Your task to perform on an android device: create a new album in the google photos Image 0: 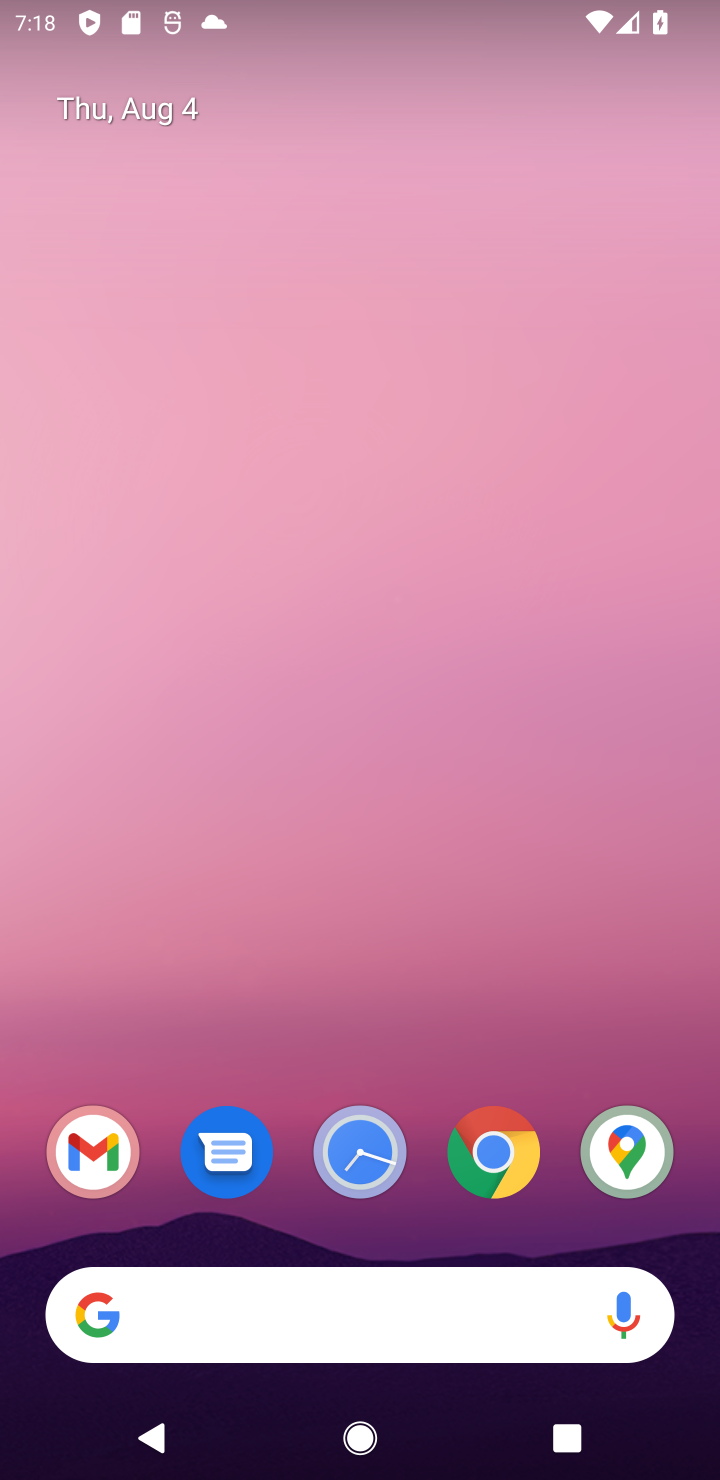
Step 0: drag from (22, 1112) to (265, 362)
Your task to perform on an android device: create a new album in the google photos Image 1: 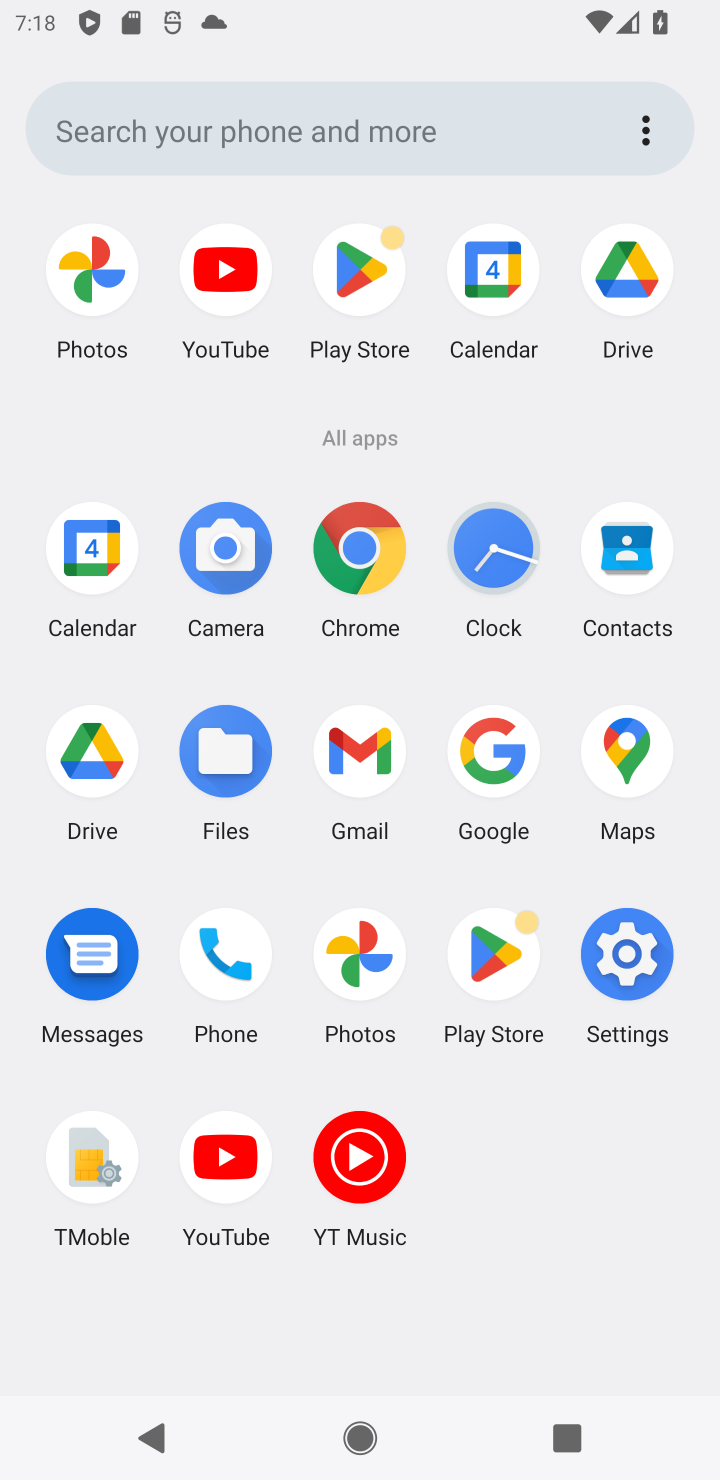
Step 1: click (106, 256)
Your task to perform on an android device: create a new album in the google photos Image 2: 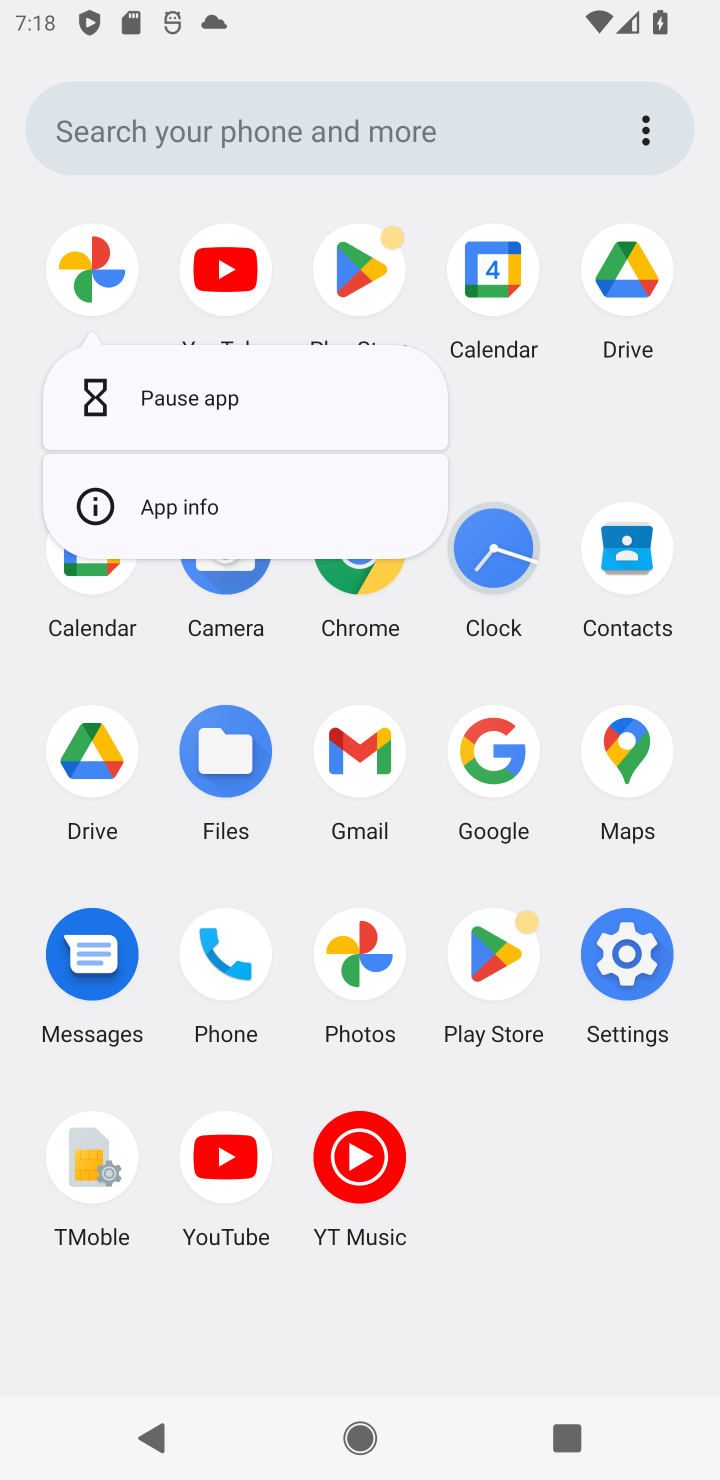
Step 2: click (109, 260)
Your task to perform on an android device: create a new album in the google photos Image 3: 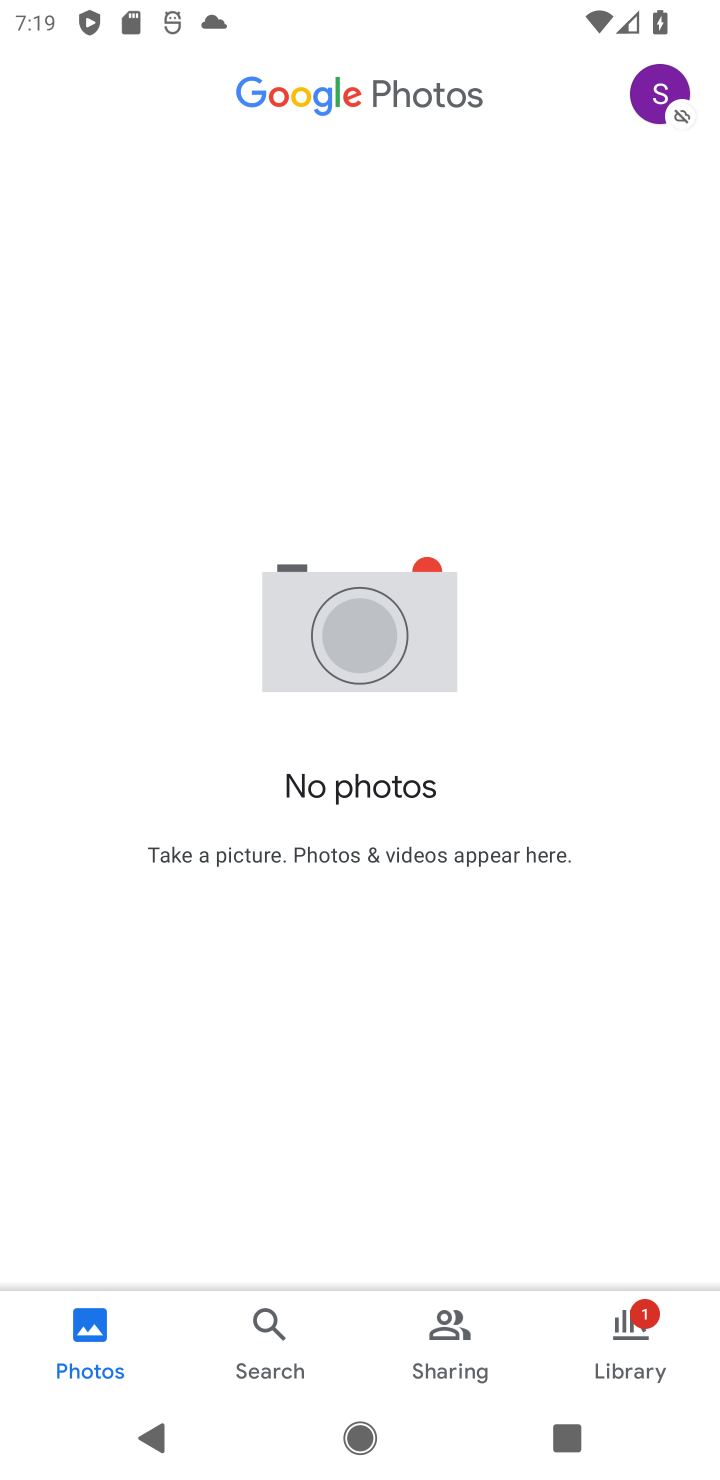
Step 3: task complete